Your task to perform on an android device: Open the map Image 0: 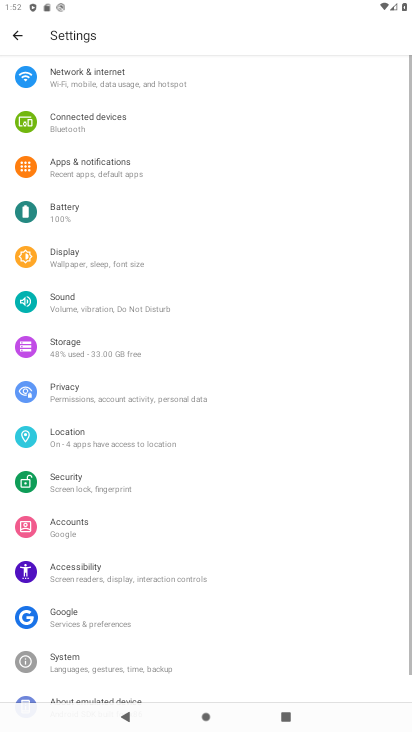
Step 0: press home button
Your task to perform on an android device: Open the map Image 1: 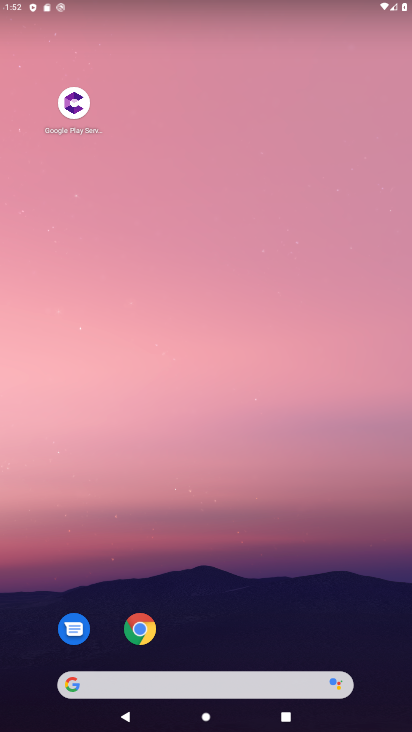
Step 1: drag from (280, 623) to (234, 34)
Your task to perform on an android device: Open the map Image 2: 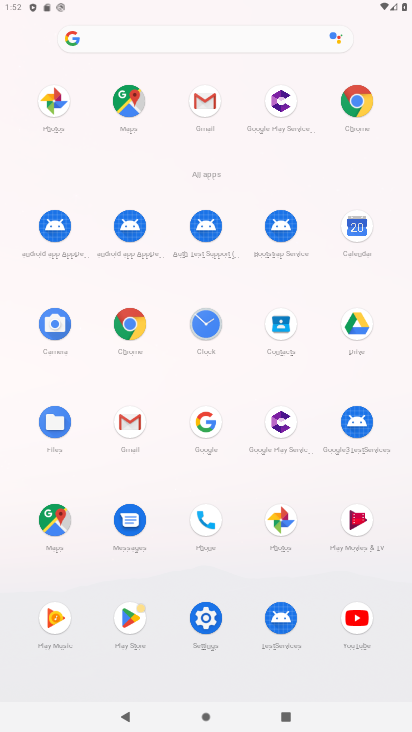
Step 2: click (134, 105)
Your task to perform on an android device: Open the map Image 3: 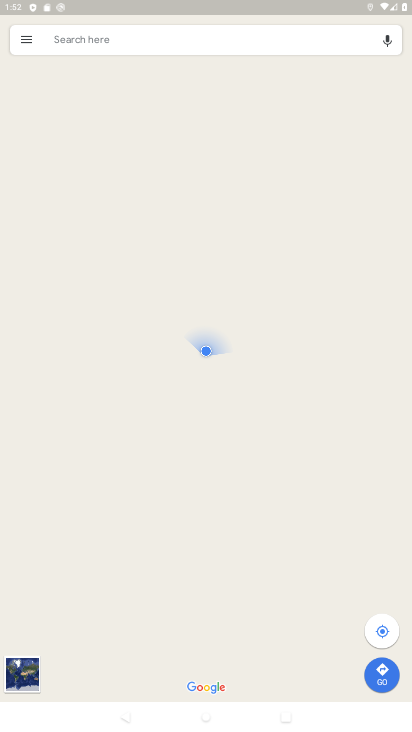
Step 3: task complete